Your task to perform on an android device: move a message to another label in the gmail app Image 0: 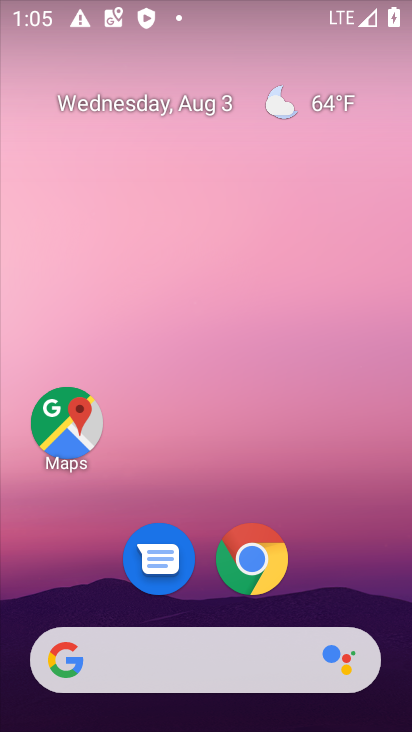
Step 0: drag from (206, 532) to (206, 76)
Your task to perform on an android device: move a message to another label in the gmail app Image 1: 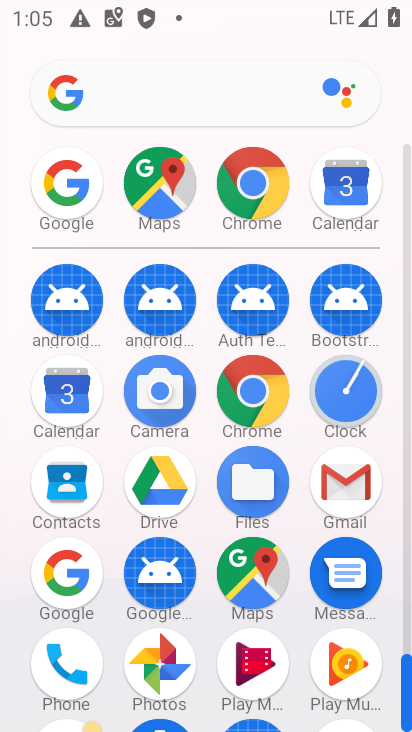
Step 1: click (348, 482)
Your task to perform on an android device: move a message to another label in the gmail app Image 2: 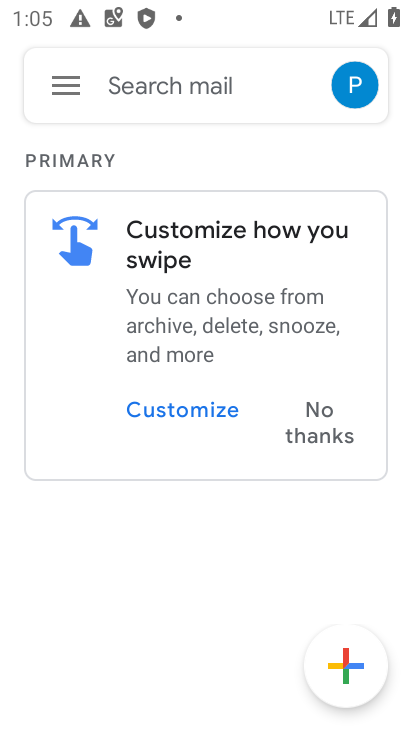
Step 2: task complete